Your task to perform on an android device: open sync settings in chrome Image 0: 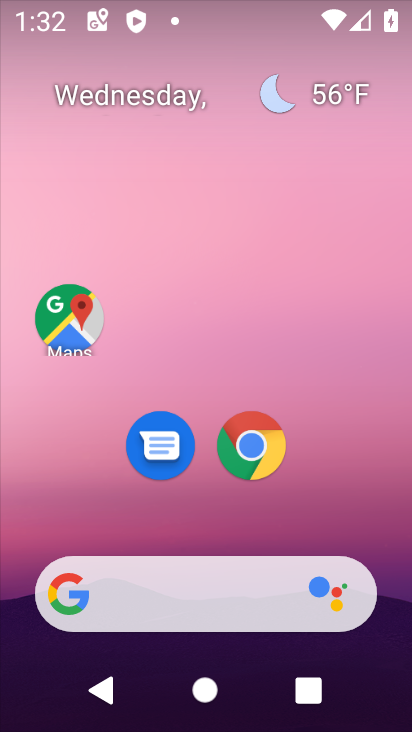
Step 0: click (270, 446)
Your task to perform on an android device: open sync settings in chrome Image 1: 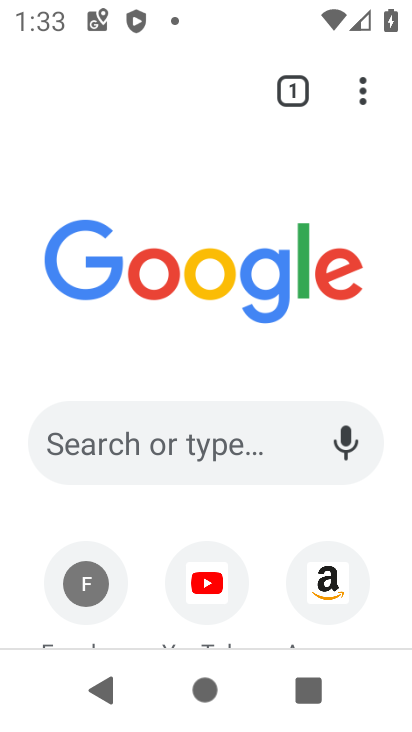
Step 1: click (358, 96)
Your task to perform on an android device: open sync settings in chrome Image 2: 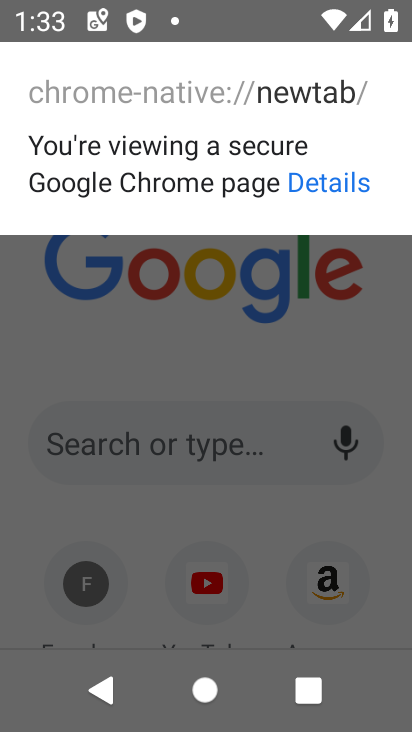
Step 2: click (378, 296)
Your task to perform on an android device: open sync settings in chrome Image 3: 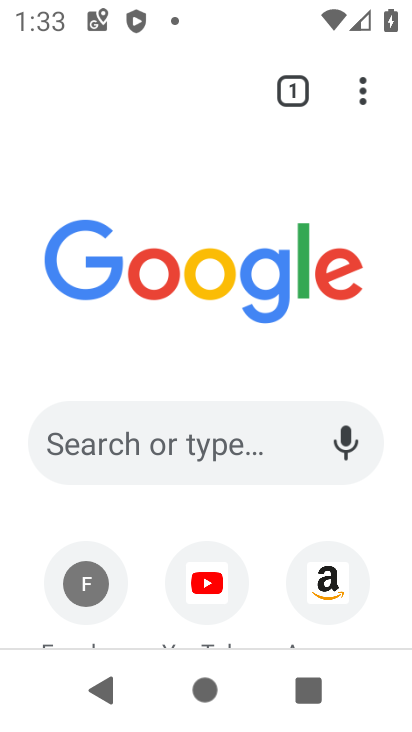
Step 3: drag from (361, 96) to (68, 476)
Your task to perform on an android device: open sync settings in chrome Image 4: 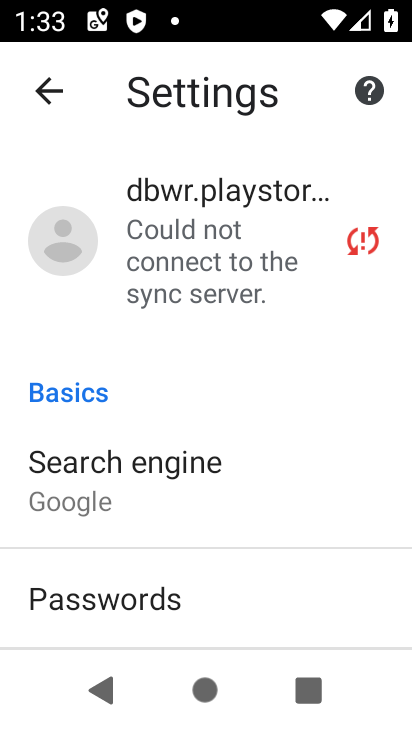
Step 4: click (157, 265)
Your task to perform on an android device: open sync settings in chrome Image 5: 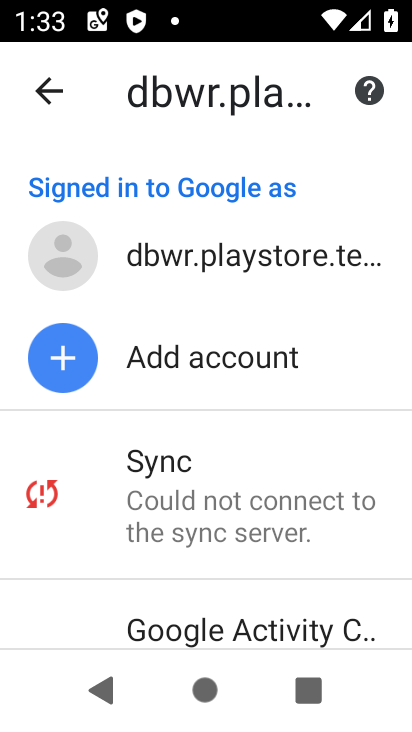
Step 5: click (183, 458)
Your task to perform on an android device: open sync settings in chrome Image 6: 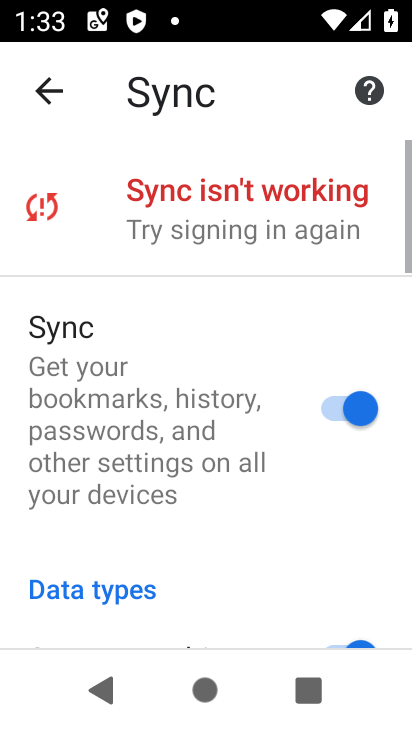
Step 6: task complete